Your task to perform on an android device: toggle location history Image 0: 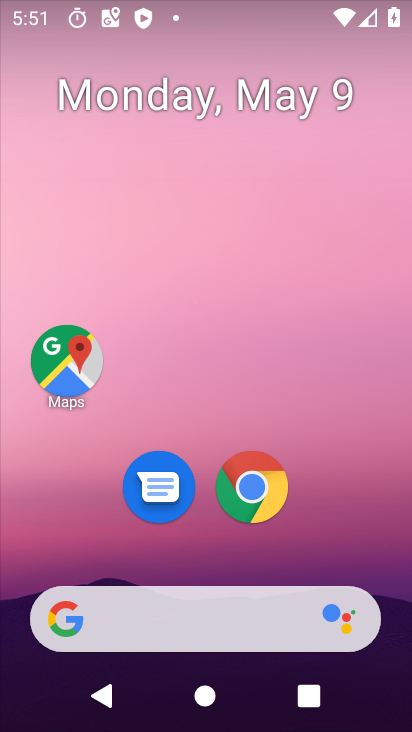
Step 0: drag from (314, 548) to (246, 144)
Your task to perform on an android device: toggle location history Image 1: 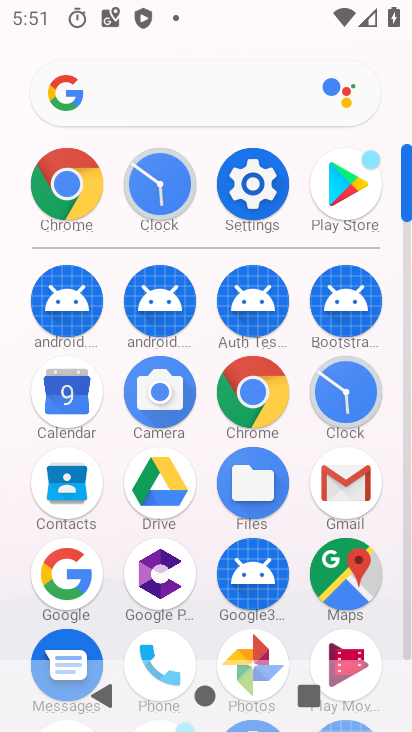
Step 1: click (254, 218)
Your task to perform on an android device: toggle location history Image 2: 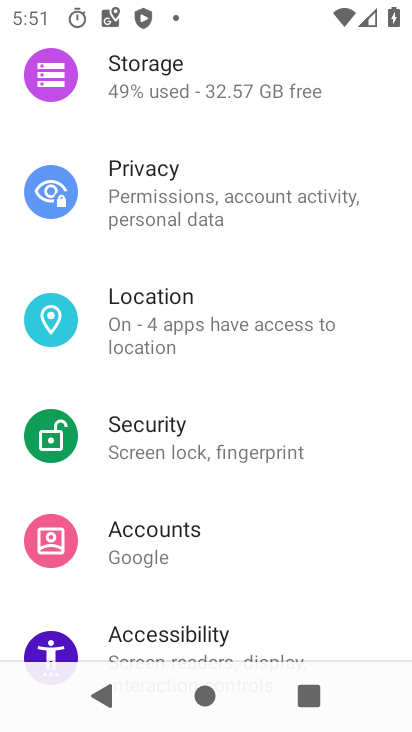
Step 2: click (137, 335)
Your task to perform on an android device: toggle location history Image 3: 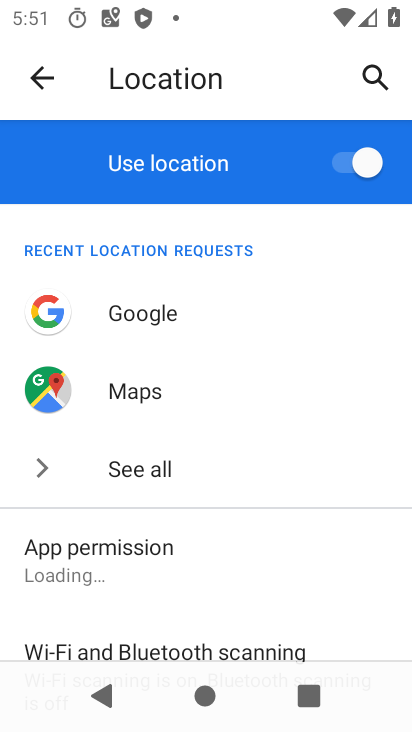
Step 3: task complete